Your task to perform on an android device: delete a single message in the gmail app Image 0: 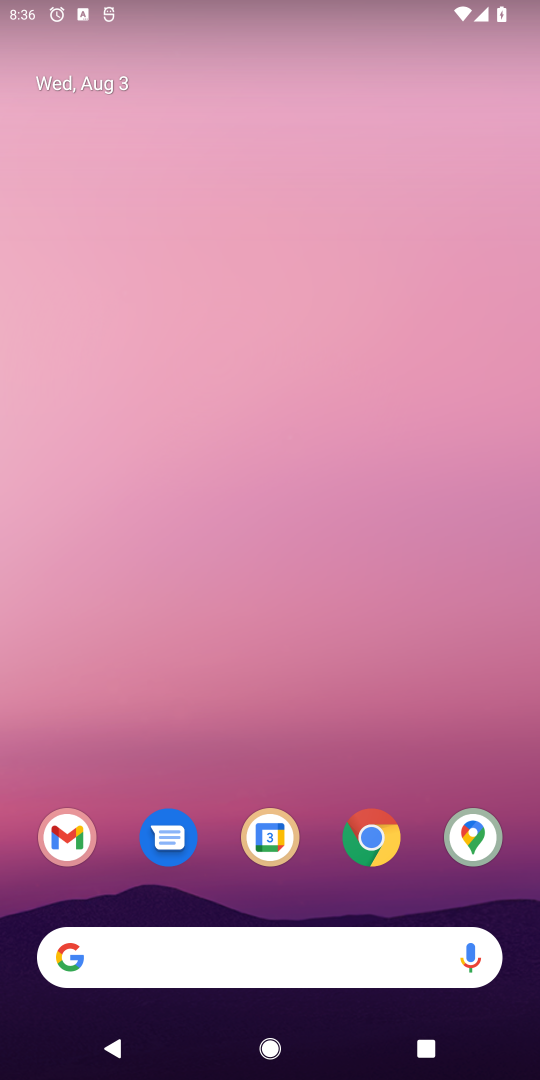
Step 0: click (69, 835)
Your task to perform on an android device: delete a single message in the gmail app Image 1: 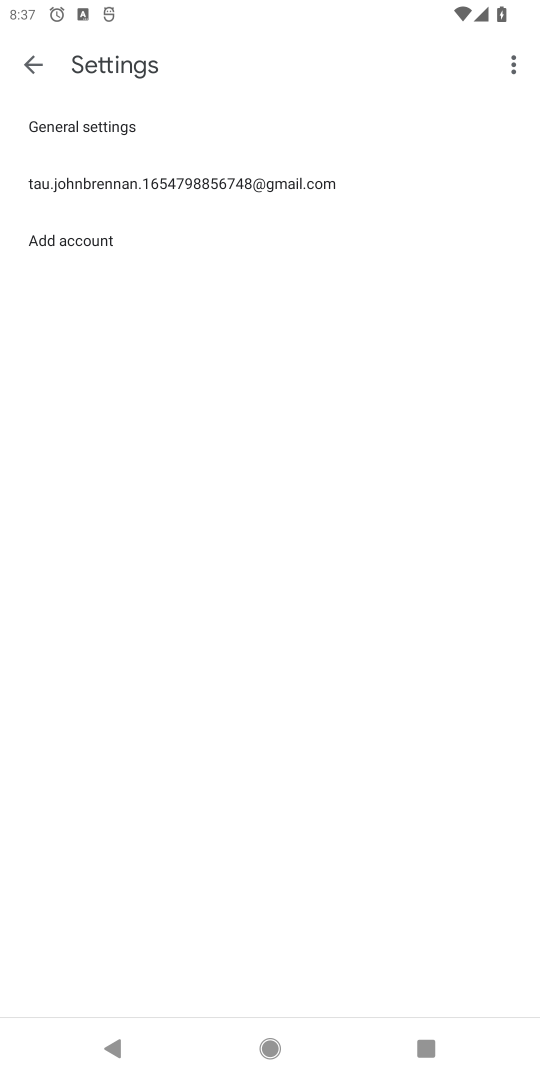
Step 1: click (23, 61)
Your task to perform on an android device: delete a single message in the gmail app Image 2: 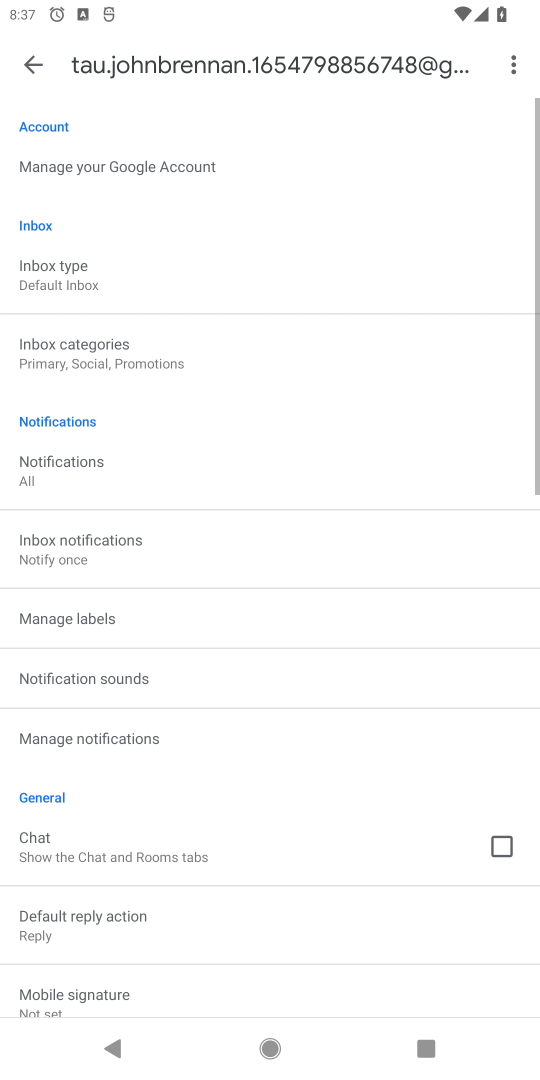
Step 2: click (23, 61)
Your task to perform on an android device: delete a single message in the gmail app Image 3: 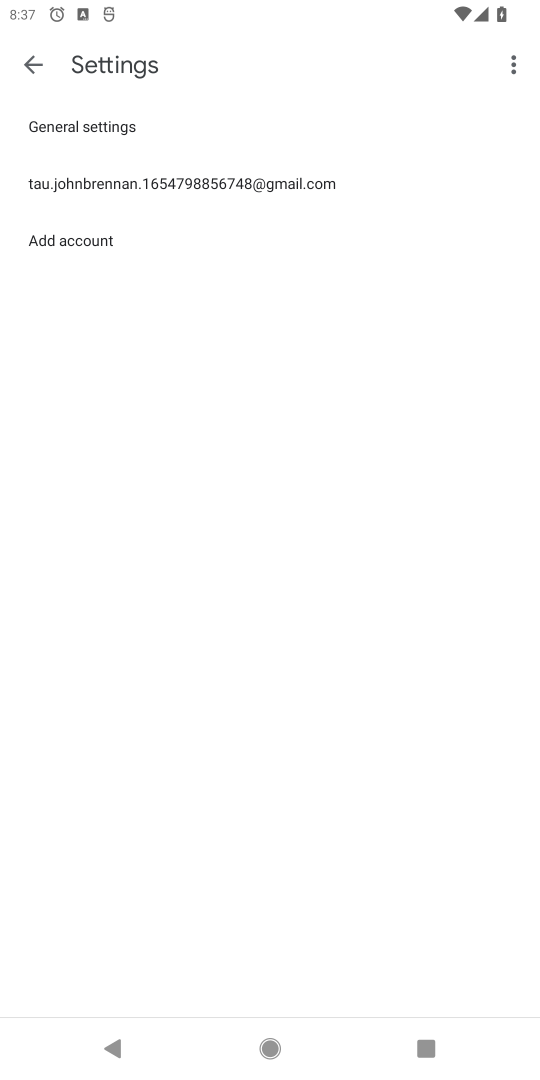
Step 3: click (23, 61)
Your task to perform on an android device: delete a single message in the gmail app Image 4: 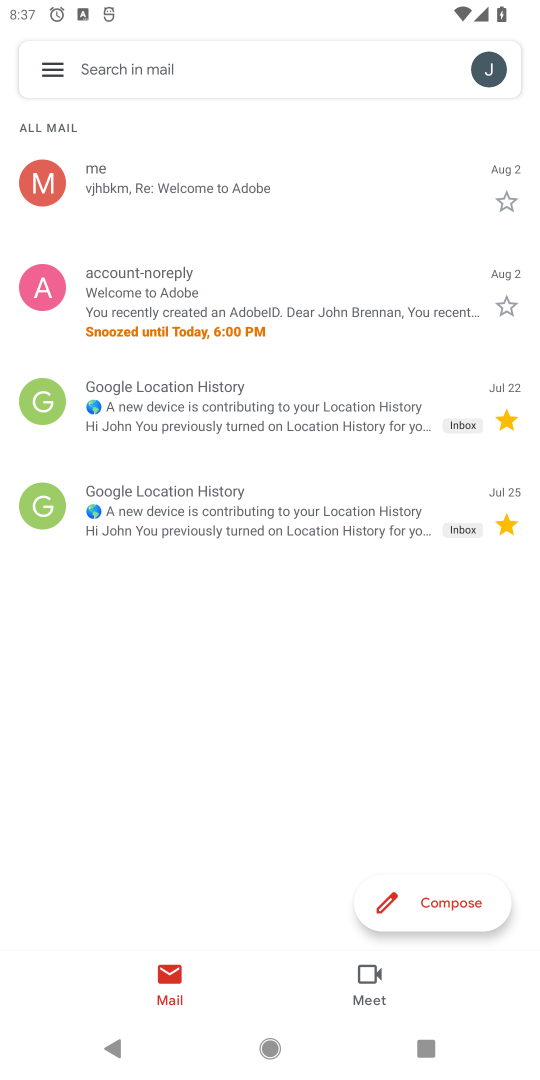
Step 4: click (186, 316)
Your task to perform on an android device: delete a single message in the gmail app Image 5: 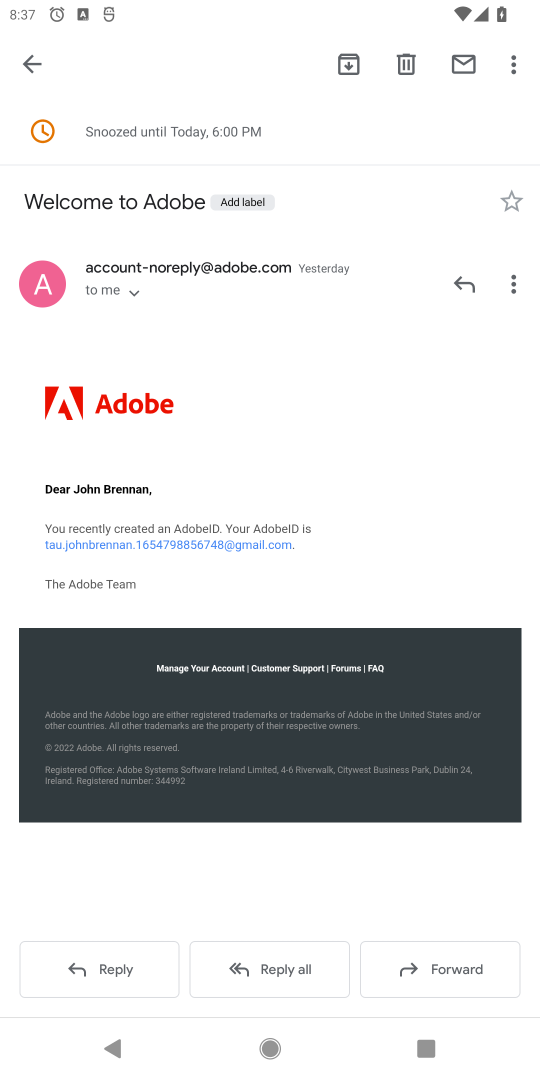
Step 5: click (517, 62)
Your task to perform on an android device: delete a single message in the gmail app Image 6: 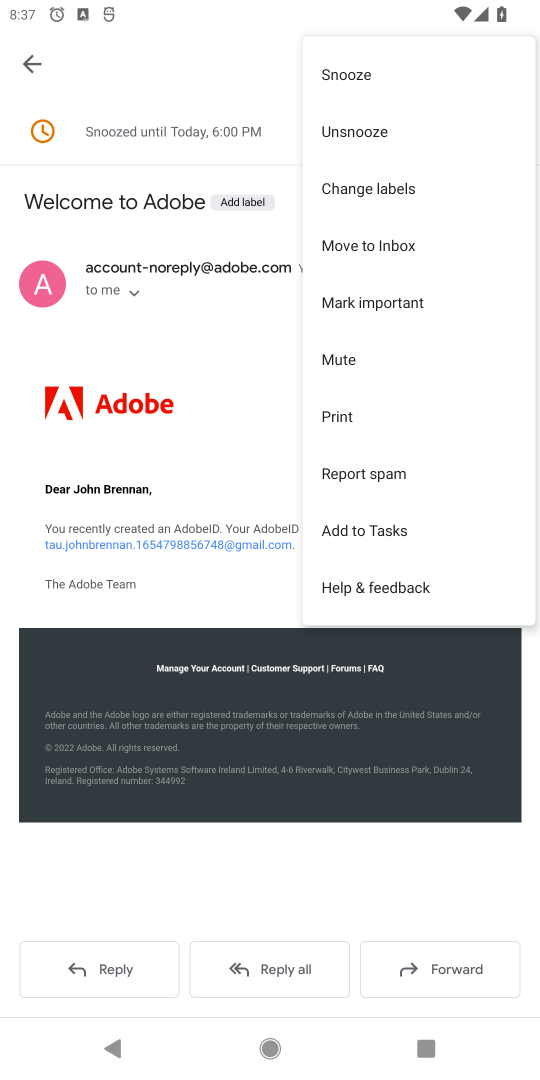
Step 6: drag from (451, 199) to (369, 499)
Your task to perform on an android device: delete a single message in the gmail app Image 7: 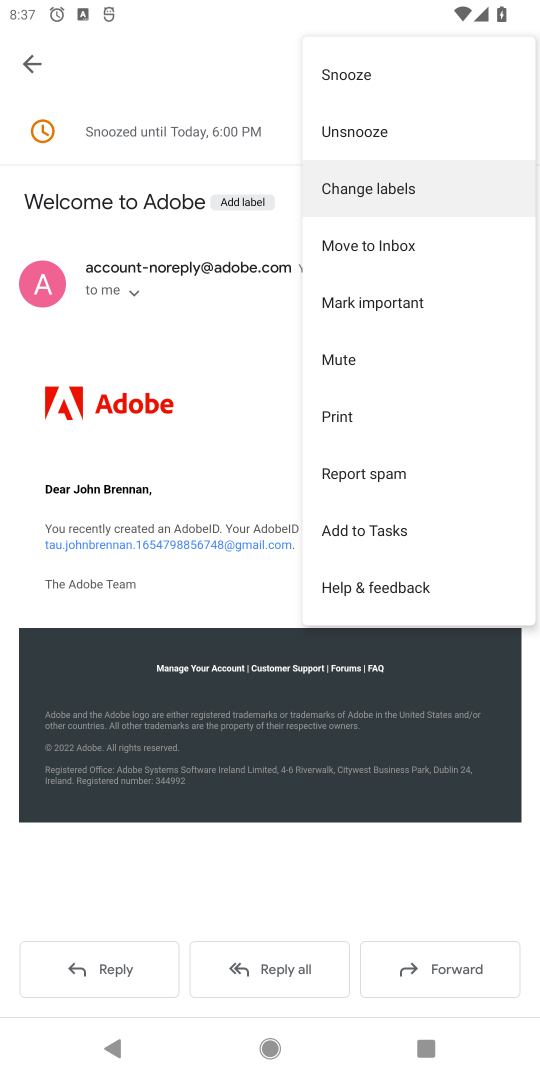
Step 7: drag from (476, 506) to (59, 2)
Your task to perform on an android device: delete a single message in the gmail app Image 8: 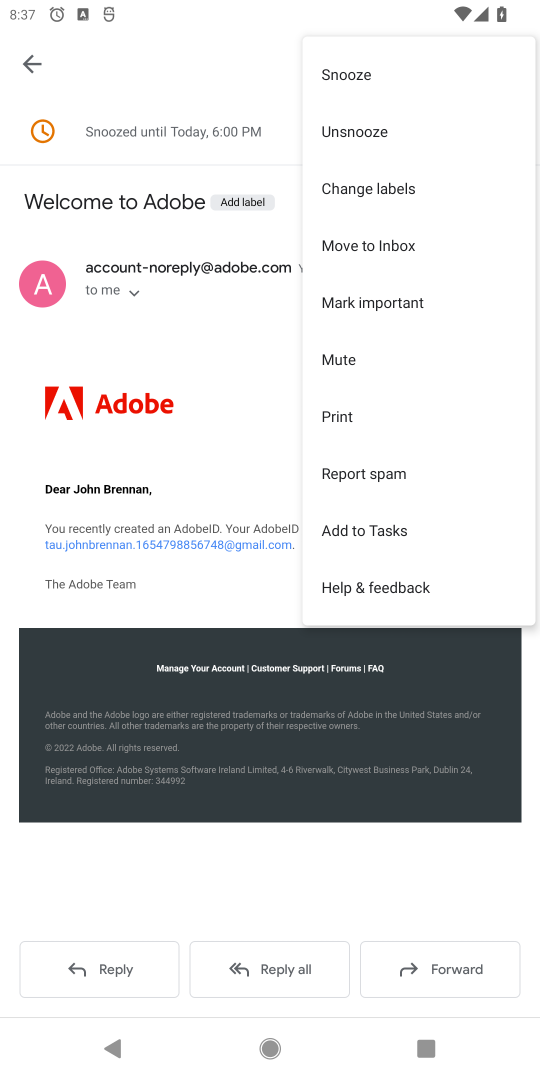
Step 8: click (30, 60)
Your task to perform on an android device: delete a single message in the gmail app Image 9: 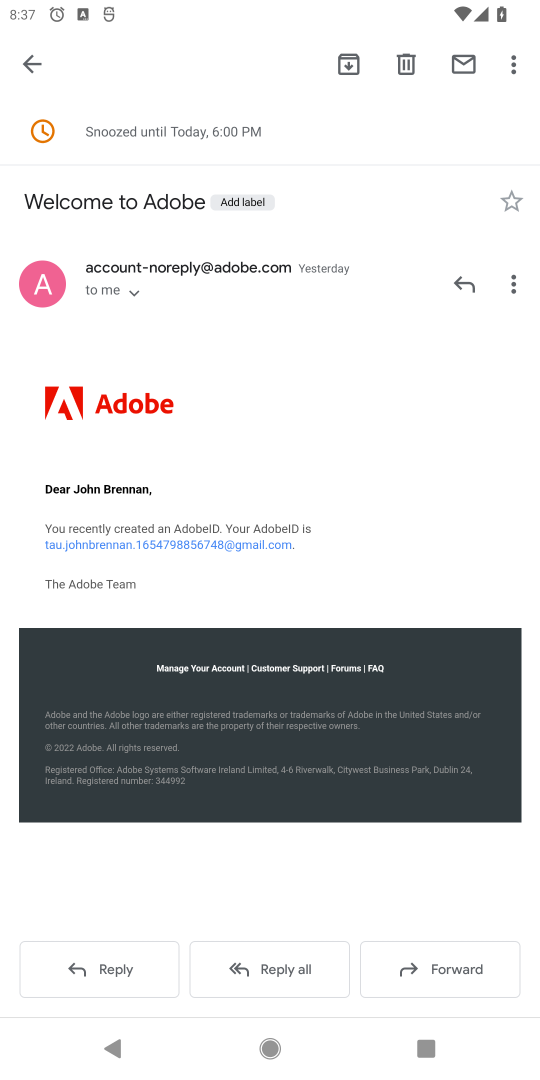
Step 9: click (406, 64)
Your task to perform on an android device: delete a single message in the gmail app Image 10: 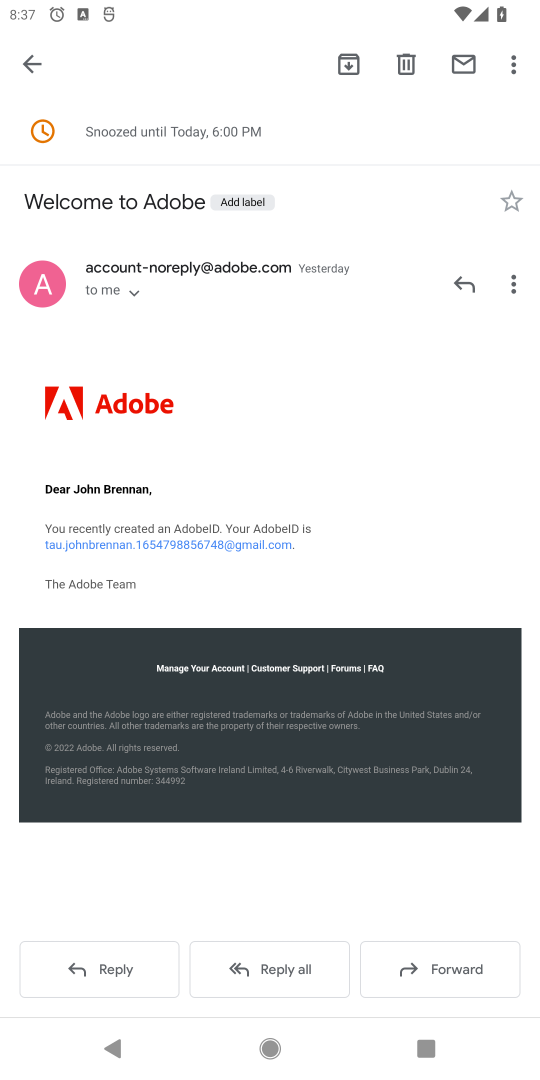
Step 10: click (424, 119)
Your task to perform on an android device: delete a single message in the gmail app Image 11: 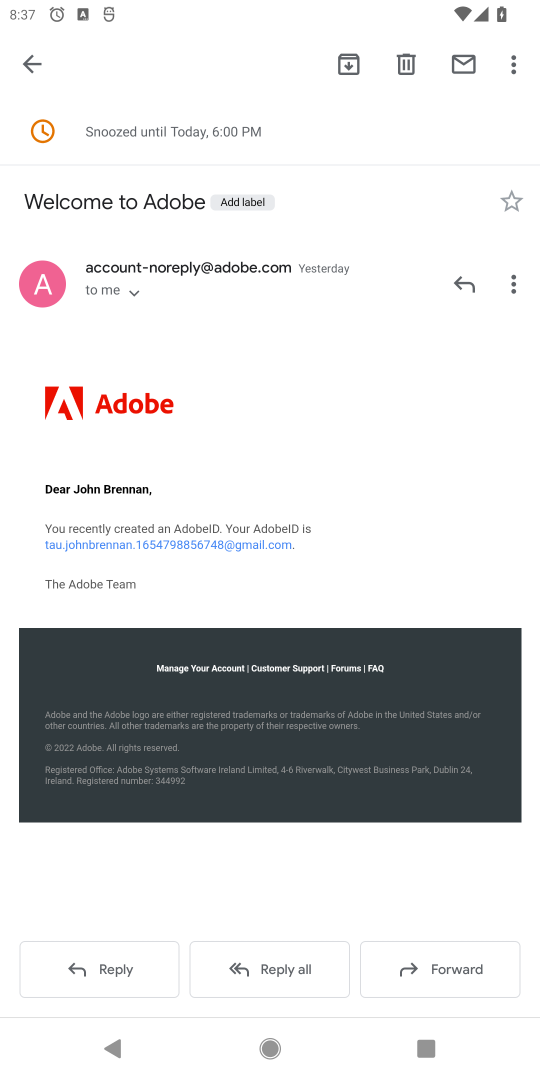
Step 11: click (38, 66)
Your task to perform on an android device: delete a single message in the gmail app Image 12: 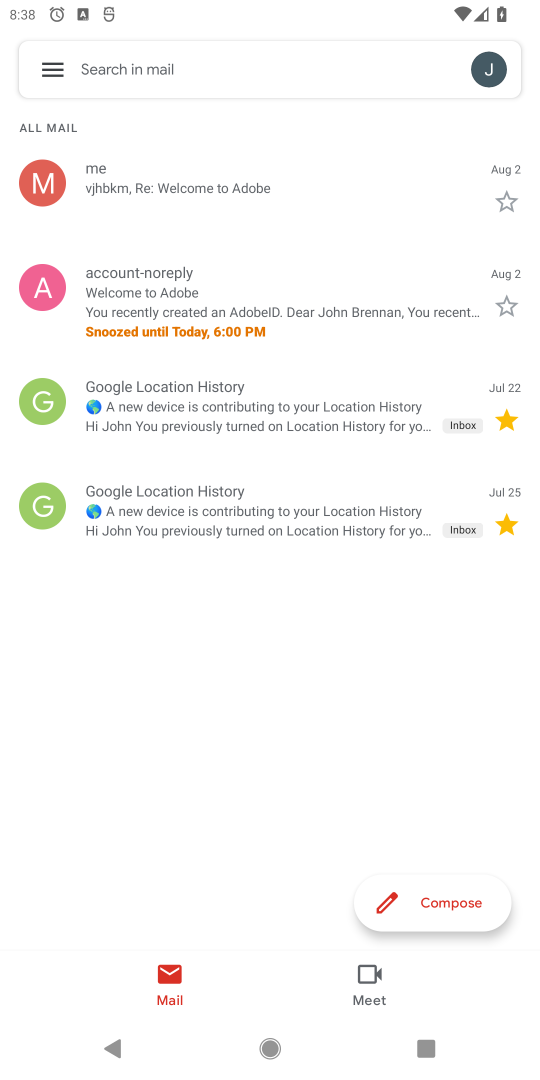
Step 12: task complete